Your task to perform on an android device: Go to Google Image 0: 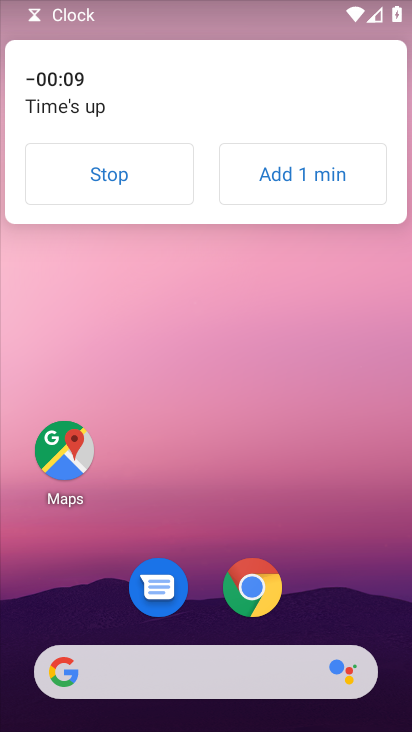
Step 0: click (104, 170)
Your task to perform on an android device: Go to Google Image 1: 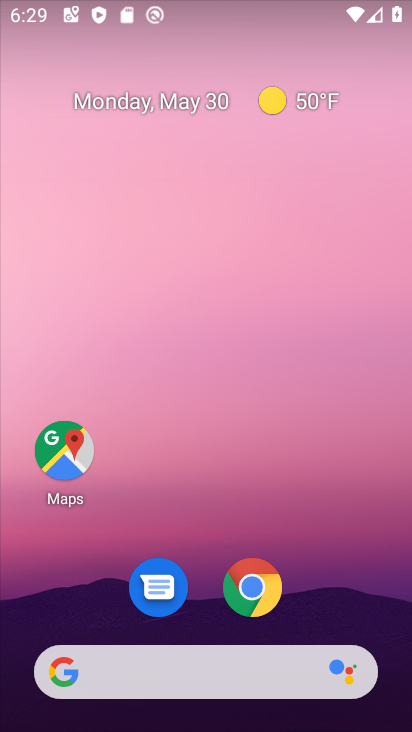
Step 1: drag from (316, 549) to (225, 8)
Your task to perform on an android device: Go to Google Image 2: 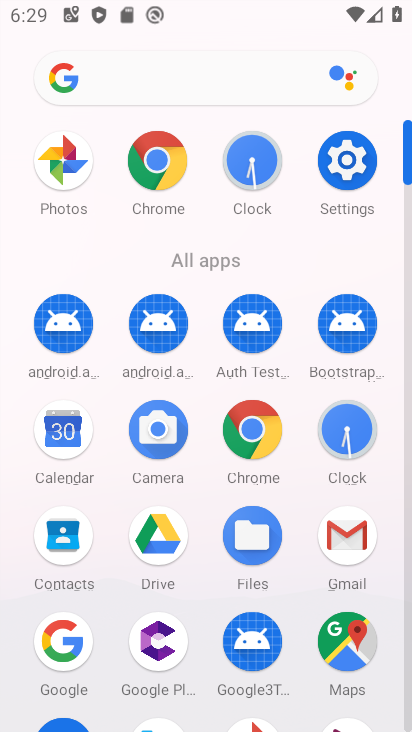
Step 2: click (152, 159)
Your task to perform on an android device: Go to Google Image 3: 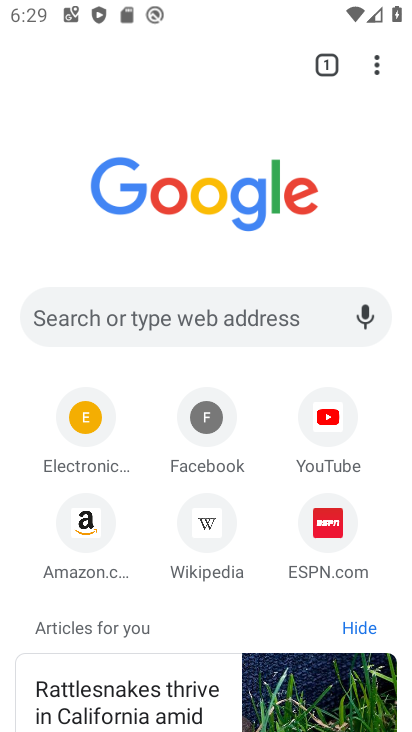
Step 3: click (143, 311)
Your task to perform on an android device: Go to Google Image 4: 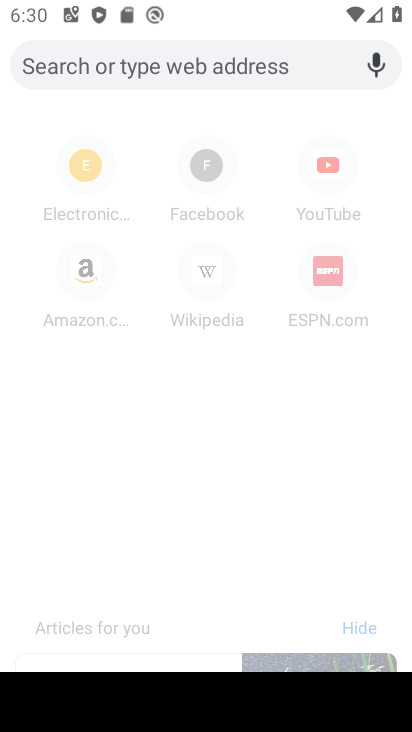
Step 4: type "Google"
Your task to perform on an android device: Go to Google Image 5: 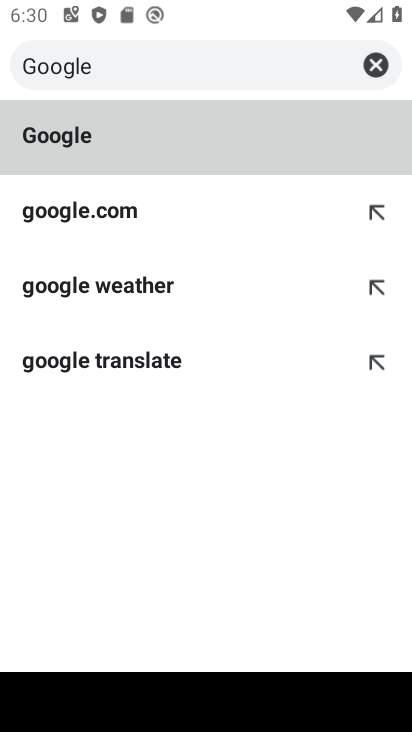
Step 5: click (24, 208)
Your task to perform on an android device: Go to Google Image 6: 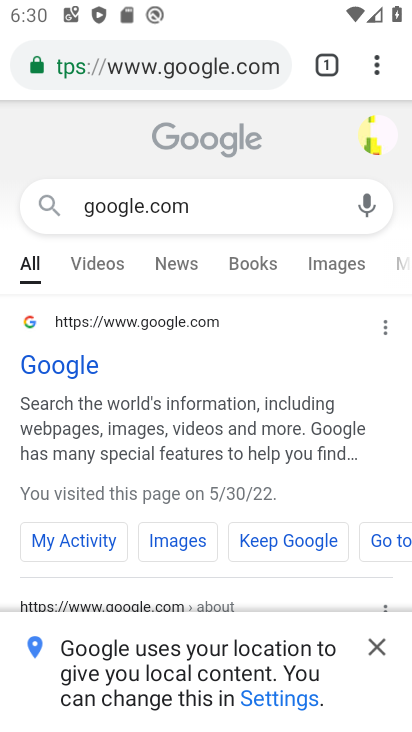
Step 6: click (50, 358)
Your task to perform on an android device: Go to Google Image 7: 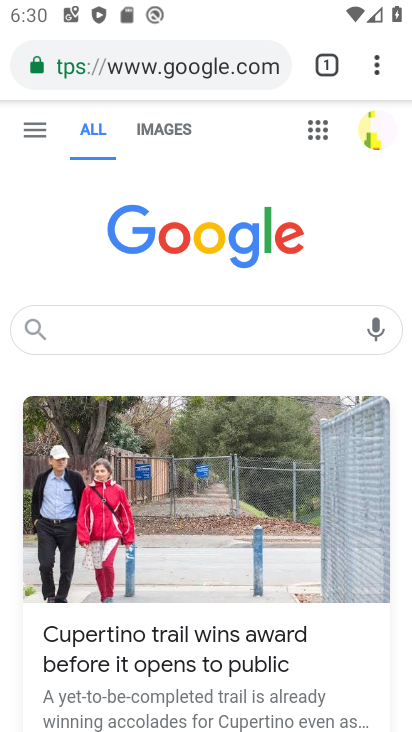
Step 7: task complete